Your task to perform on an android device: Open my contact list Image 0: 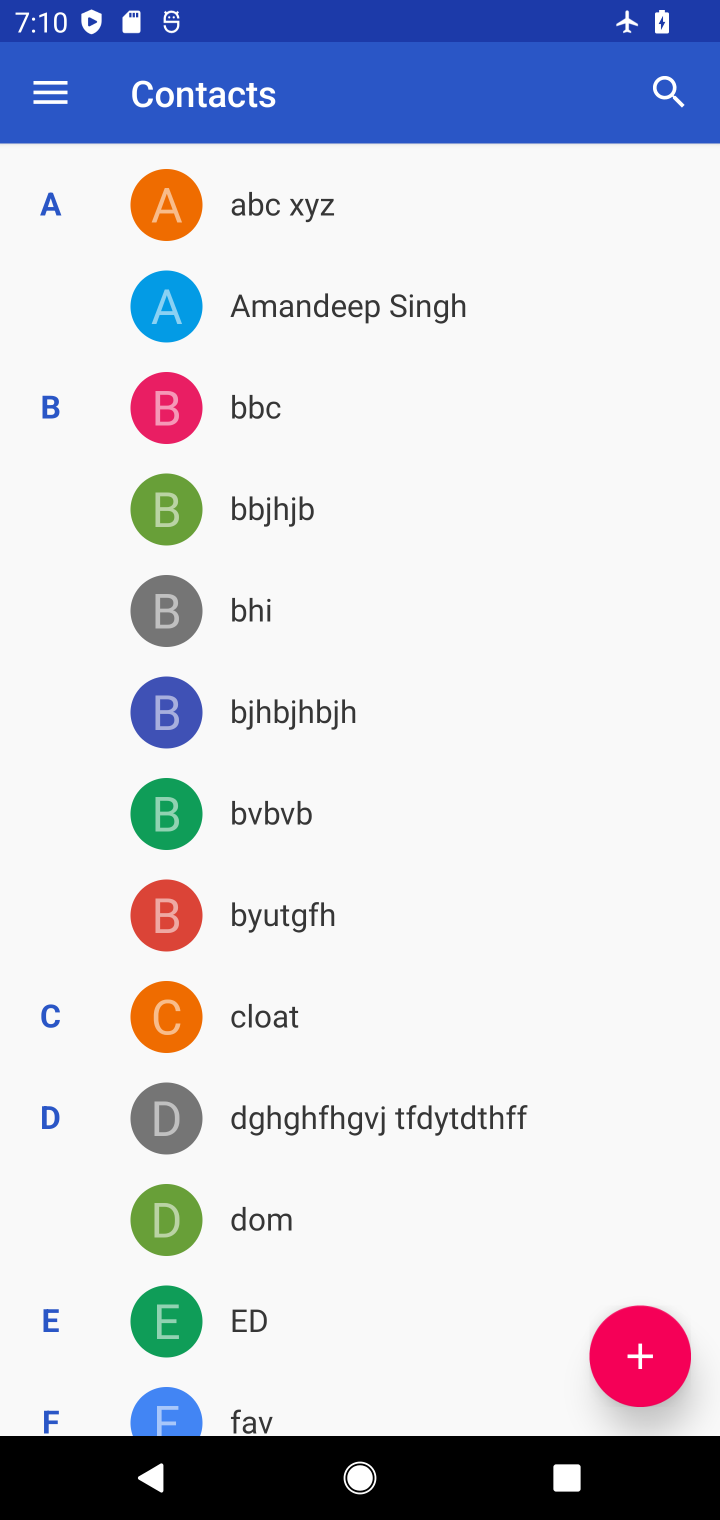
Step 0: press home button
Your task to perform on an android device: Open my contact list Image 1: 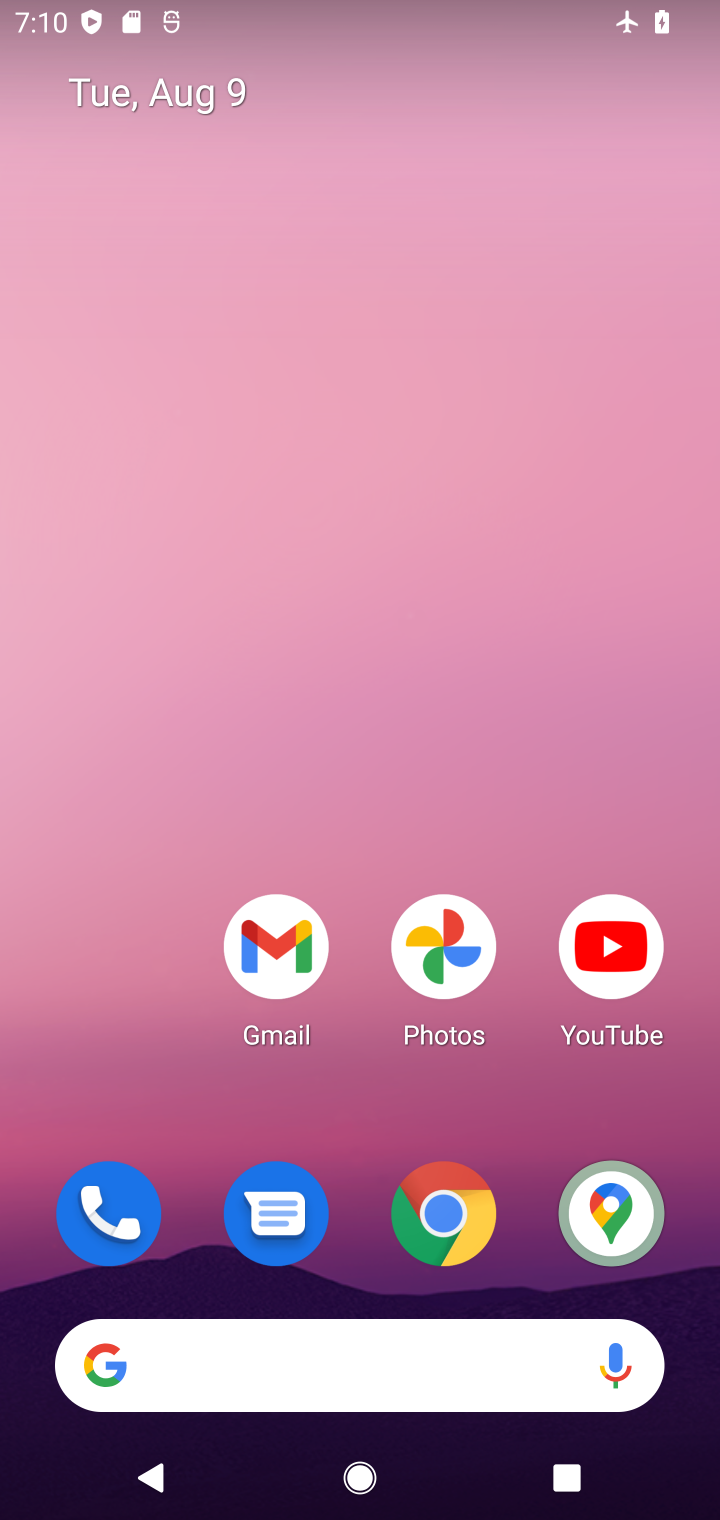
Step 1: click (98, 1186)
Your task to perform on an android device: Open my contact list Image 2: 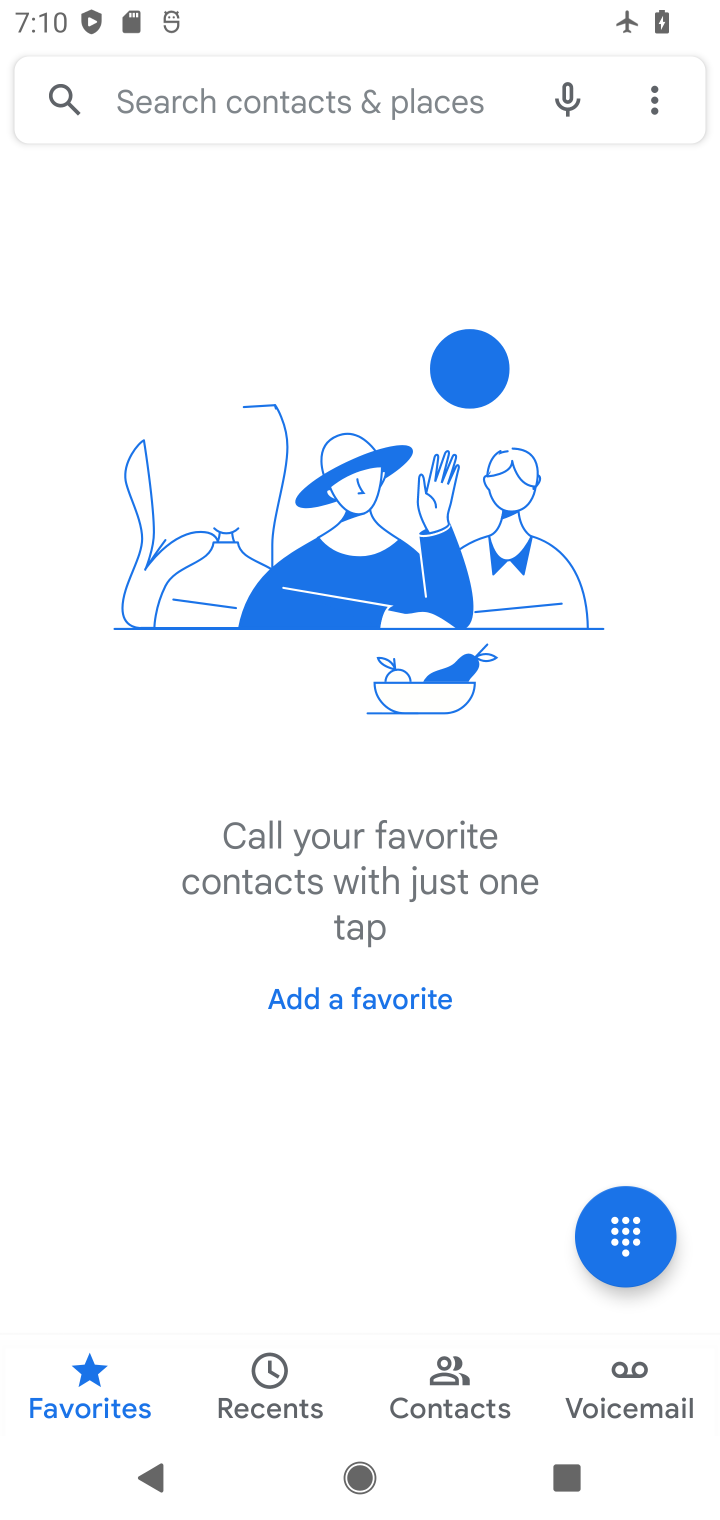
Step 2: click (440, 1347)
Your task to perform on an android device: Open my contact list Image 3: 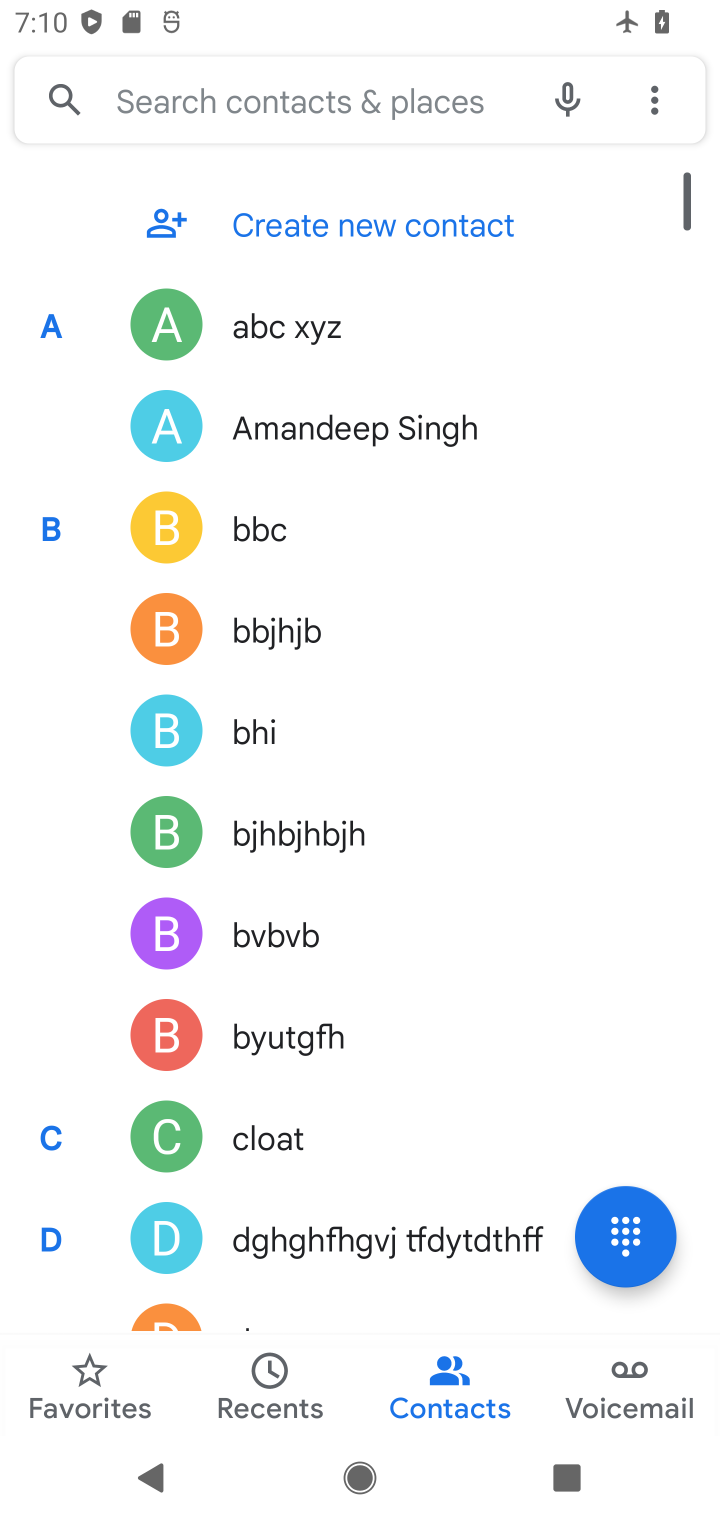
Step 3: task complete